Your task to perform on an android device: What's the weather going to be this weekend? Image 0: 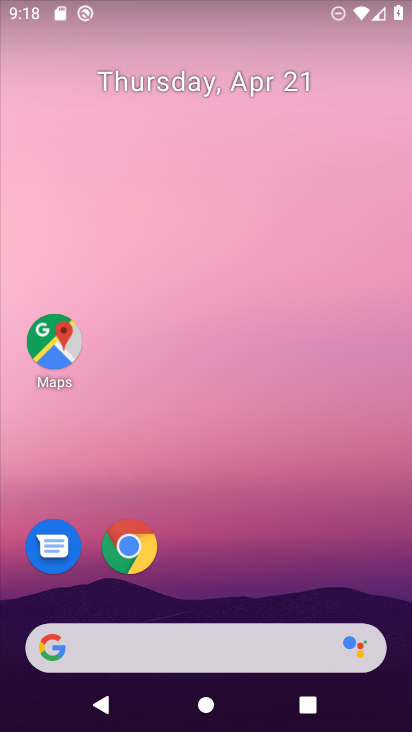
Step 0: click (272, 645)
Your task to perform on an android device: What's the weather going to be this weekend? Image 1: 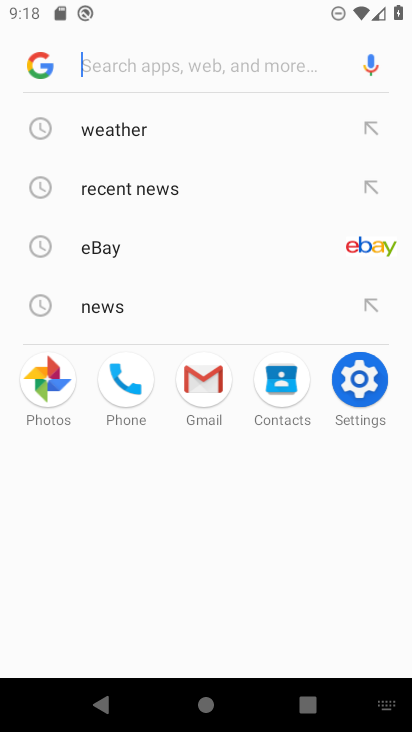
Step 1: click (130, 131)
Your task to perform on an android device: What's the weather going to be this weekend? Image 2: 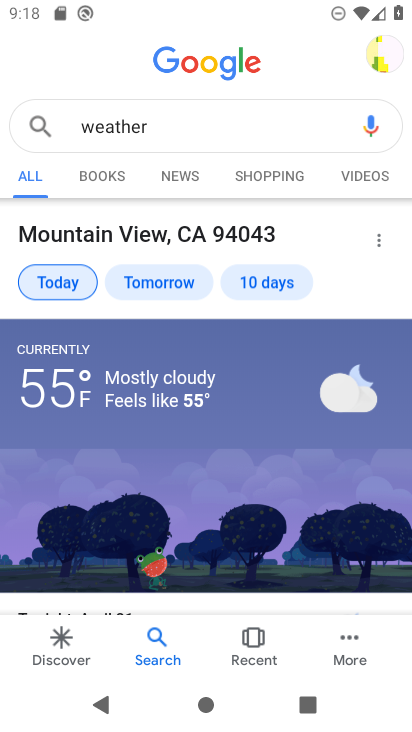
Step 2: click (266, 276)
Your task to perform on an android device: What's the weather going to be this weekend? Image 3: 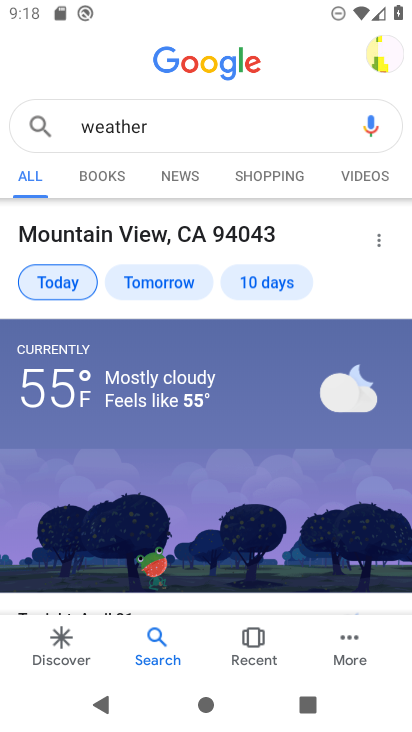
Step 3: click (271, 290)
Your task to perform on an android device: What's the weather going to be this weekend? Image 4: 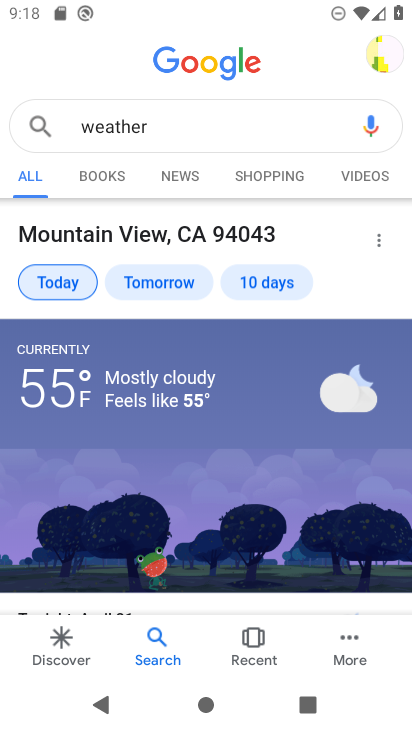
Step 4: drag from (260, 469) to (296, 173)
Your task to perform on an android device: What's the weather going to be this weekend? Image 5: 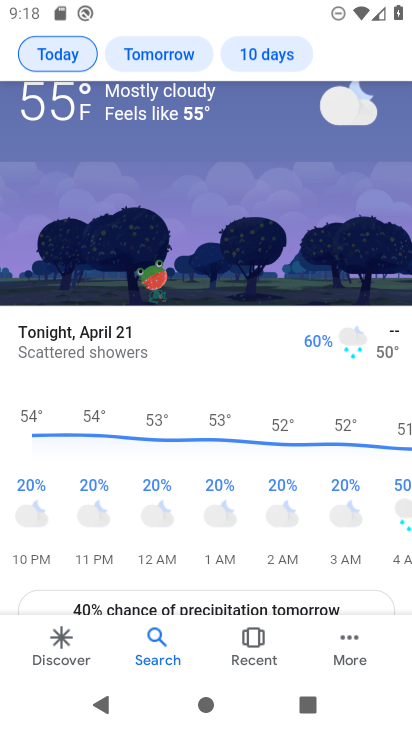
Step 5: click (276, 44)
Your task to perform on an android device: What's the weather going to be this weekend? Image 6: 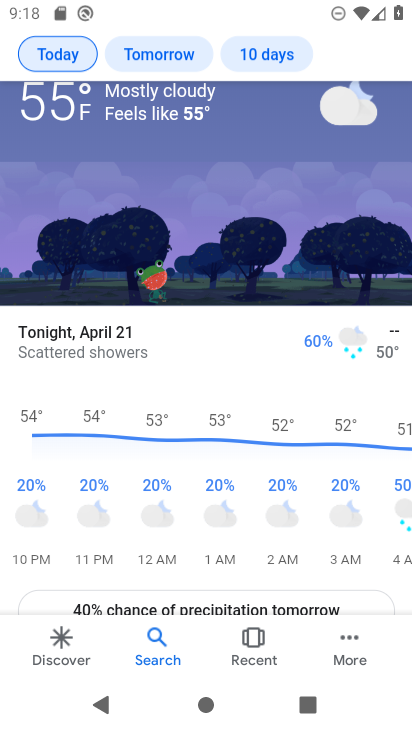
Step 6: click (276, 45)
Your task to perform on an android device: What's the weather going to be this weekend? Image 7: 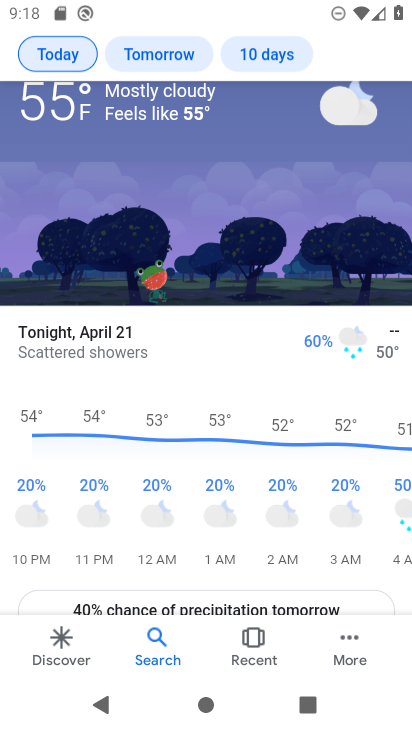
Step 7: task complete